Your task to perform on an android device: toggle priority inbox in the gmail app Image 0: 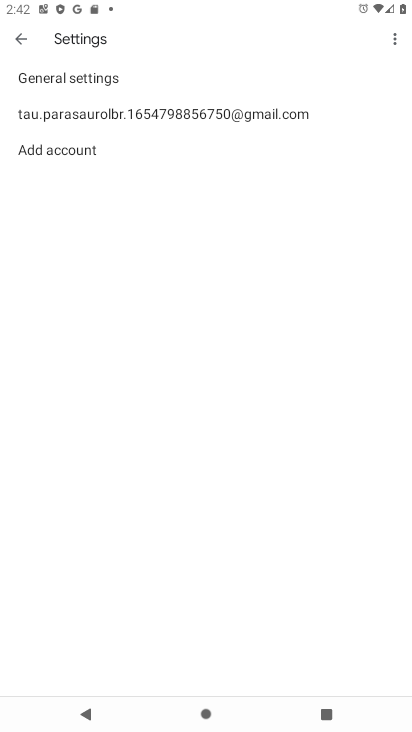
Step 0: press home button
Your task to perform on an android device: toggle priority inbox in the gmail app Image 1: 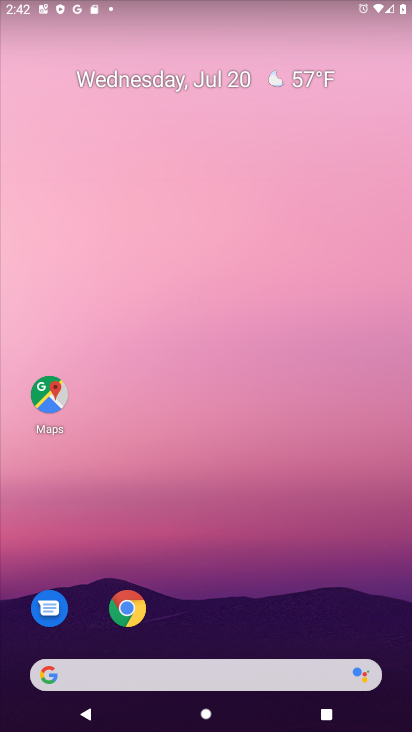
Step 1: drag from (167, 396) to (180, 208)
Your task to perform on an android device: toggle priority inbox in the gmail app Image 2: 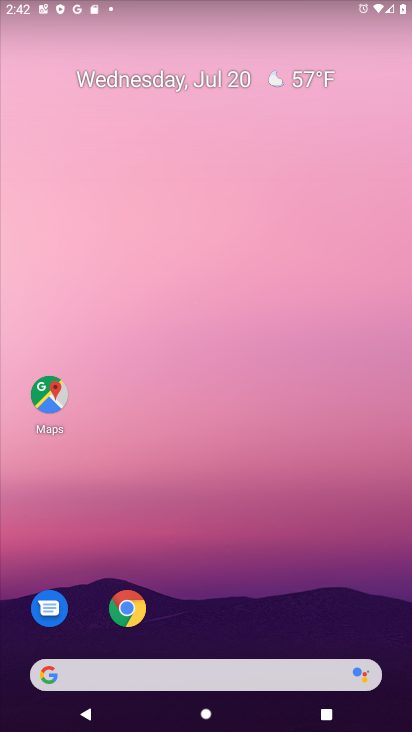
Step 2: drag from (197, 639) to (228, 193)
Your task to perform on an android device: toggle priority inbox in the gmail app Image 3: 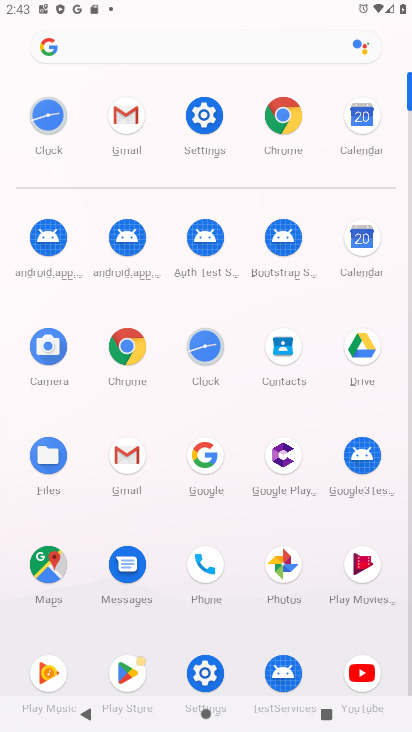
Step 3: click (120, 481)
Your task to perform on an android device: toggle priority inbox in the gmail app Image 4: 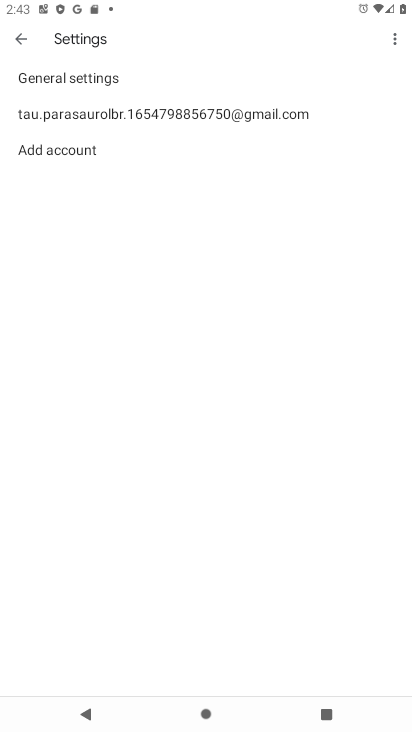
Step 4: click (20, 35)
Your task to perform on an android device: toggle priority inbox in the gmail app Image 5: 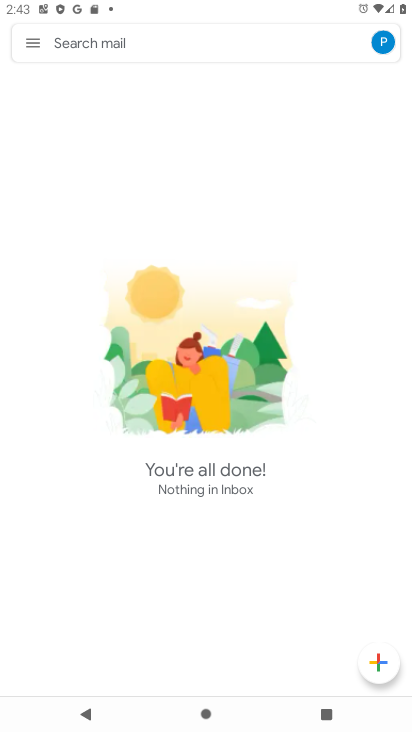
Step 5: click (35, 42)
Your task to perform on an android device: toggle priority inbox in the gmail app Image 6: 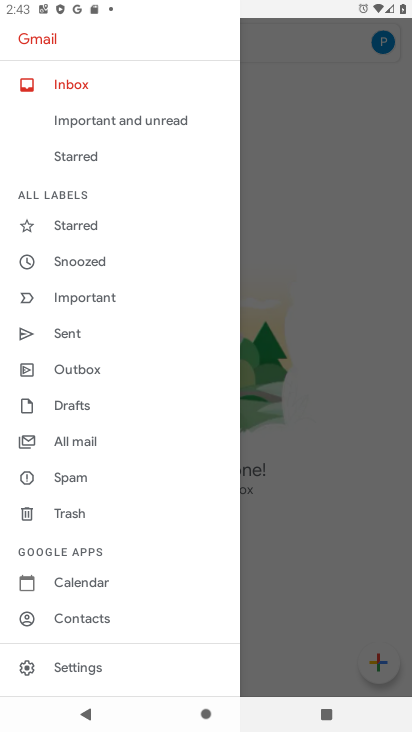
Step 6: click (87, 661)
Your task to perform on an android device: toggle priority inbox in the gmail app Image 7: 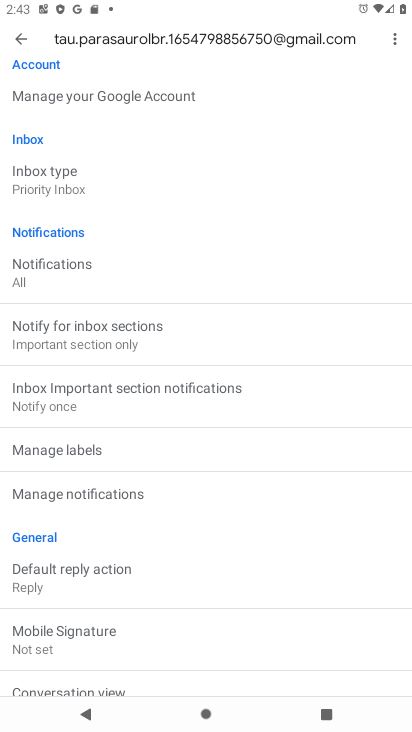
Step 7: click (62, 182)
Your task to perform on an android device: toggle priority inbox in the gmail app Image 8: 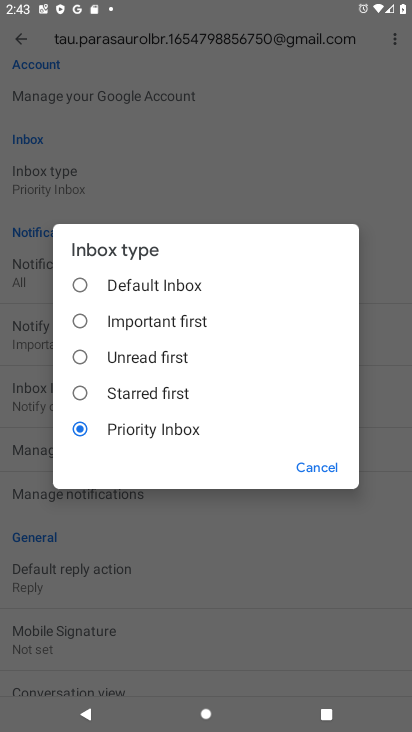
Step 8: click (78, 281)
Your task to perform on an android device: toggle priority inbox in the gmail app Image 9: 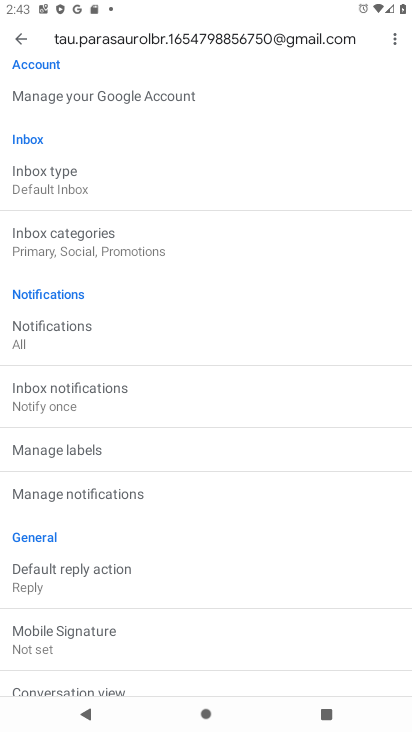
Step 9: task complete